Your task to perform on an android device: show emergency info Image 0: 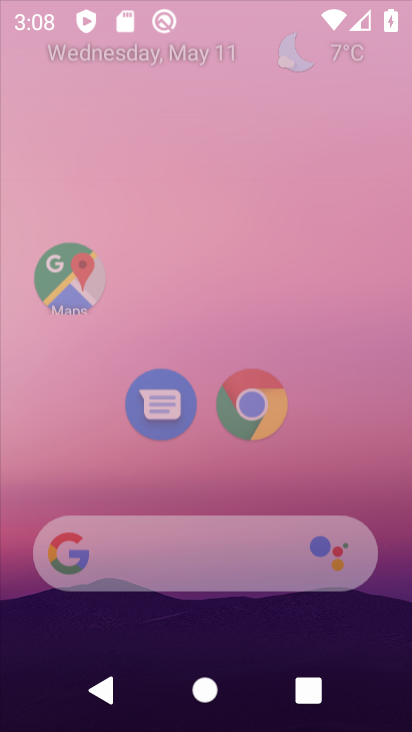
Step 0: click (213, 166)
Your task to perform on an android device: show emergency info Image 1: 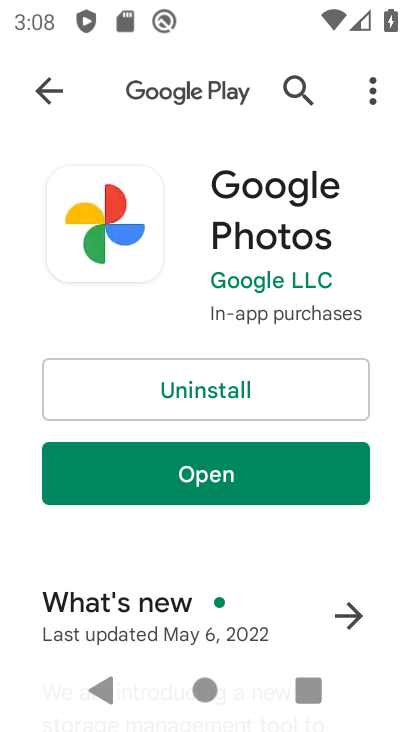
Step 1: press home button
Your task to perform on an android device: show emergency info Image 2: 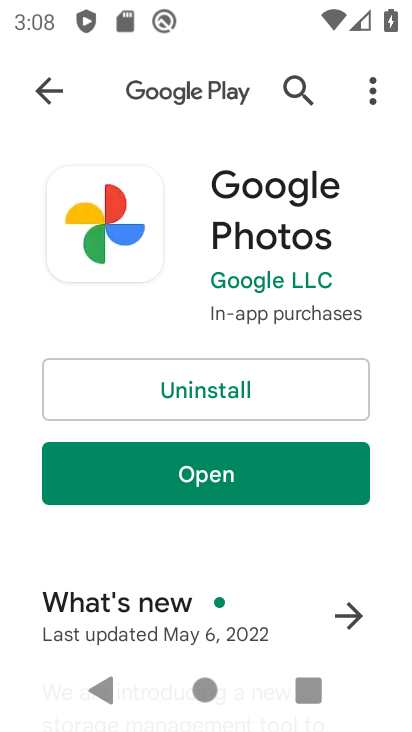
Step 2: press home button
Your task to perform on an android device: show emergency info Image 3: 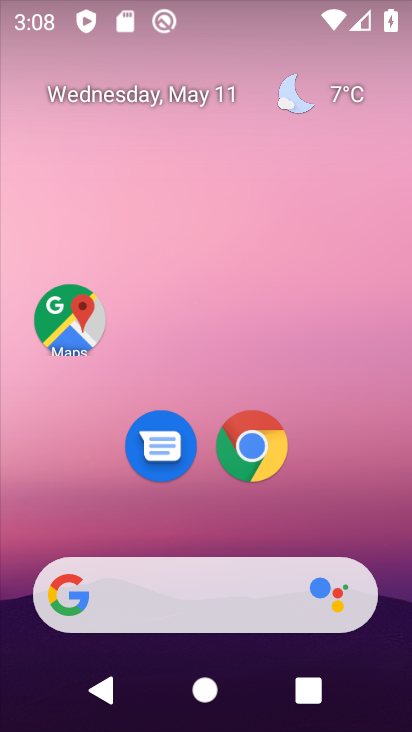
Step 3: click (112, 55)
Your task to perform on an android device: show emergency info Image 4: 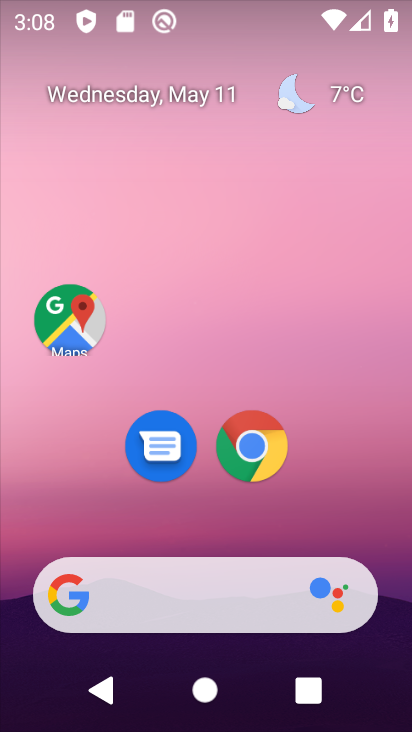
Step 4: drag from (315, 494) to (101, 58)
Your task to perform on an android device: show emergency info Image 5: 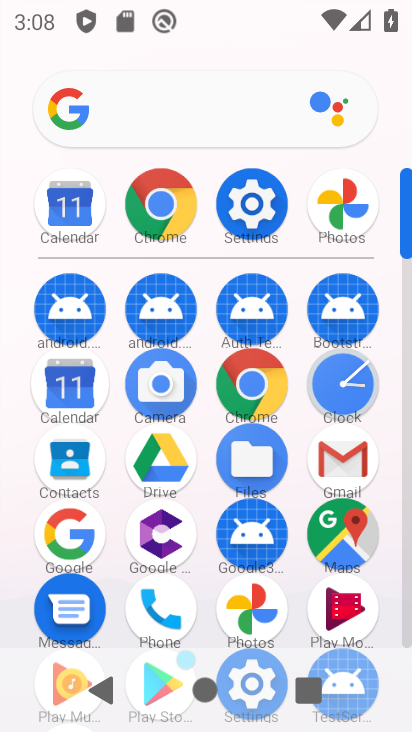
Step 5: click (234, 209)
Your task to perform on an android device: show emergency info Image 6: 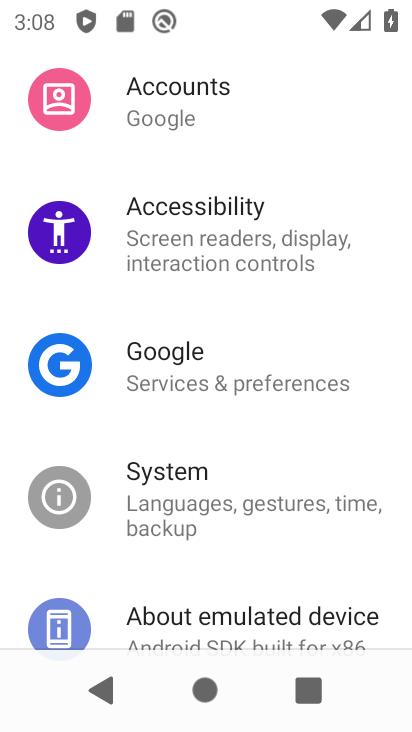
Step 6: click (235, 205)
Your task to perform on an android device: show emergency info Image 7: 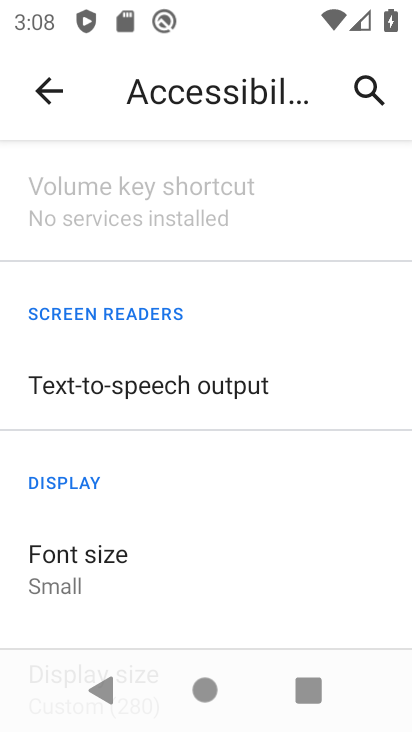
Step 7: click (53, 82)
Your task to perform on an android device: show emergency info Image 8: 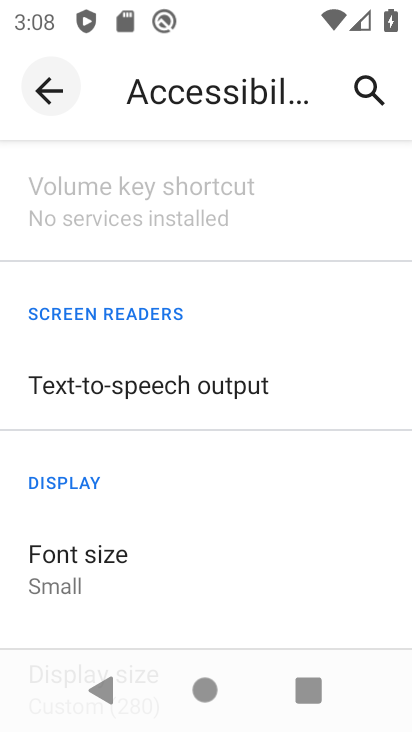
Step 8: click (47, 79)
Your task to perform on an android device: show emergency info Image 9: 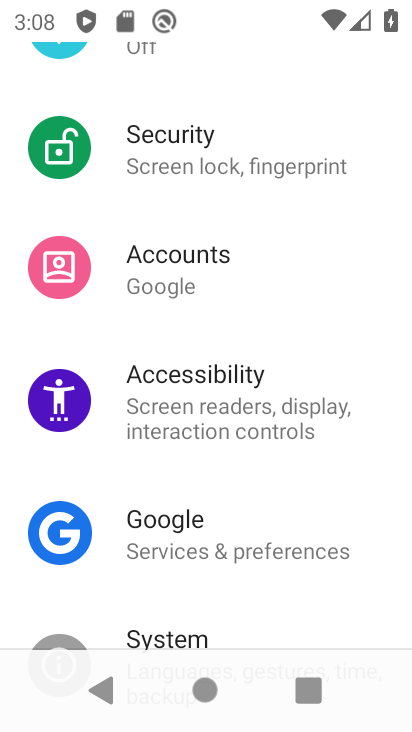
Step 9: drag from (225, 447) to (222, 224)
Your task to perform on an android device: show emergency info Image 10: 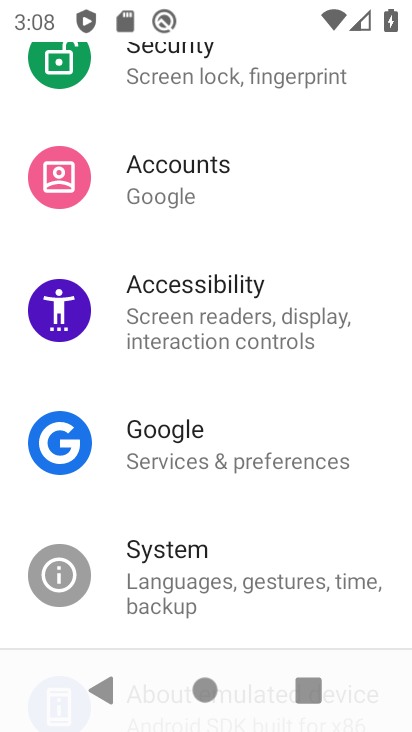
Step 10: drag from (241, 542) to (324, 81)
Your task to perform on an android device: show emergency info Image 11: 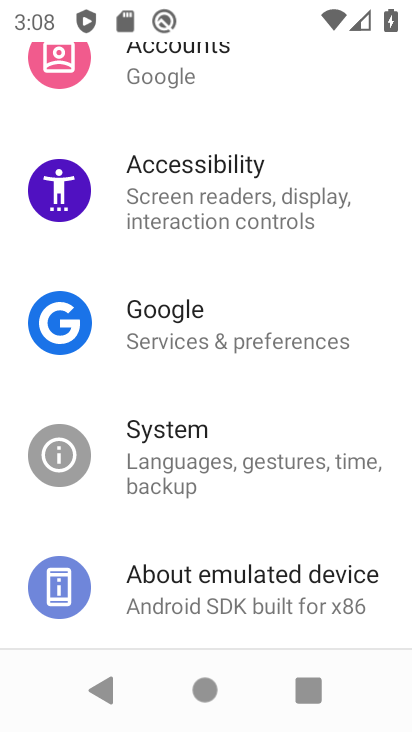
Step 11: drag from (171, 587) to (160, 209)
Your task to perform on an android device: show emergency info Image 12: 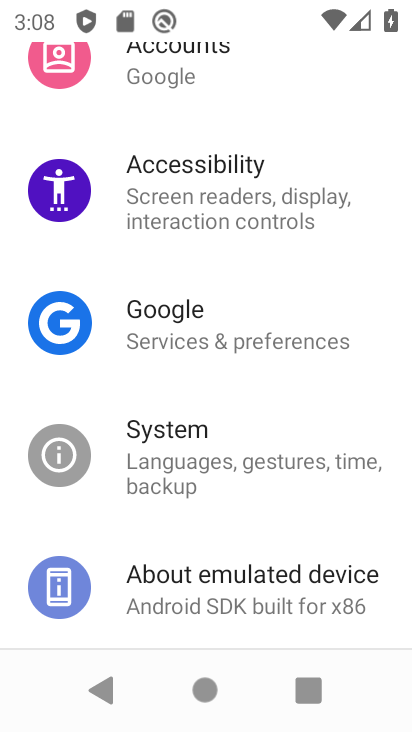
Step 12: click (185, 594)
Your task to perform on an android device: show emergency info Image 13: 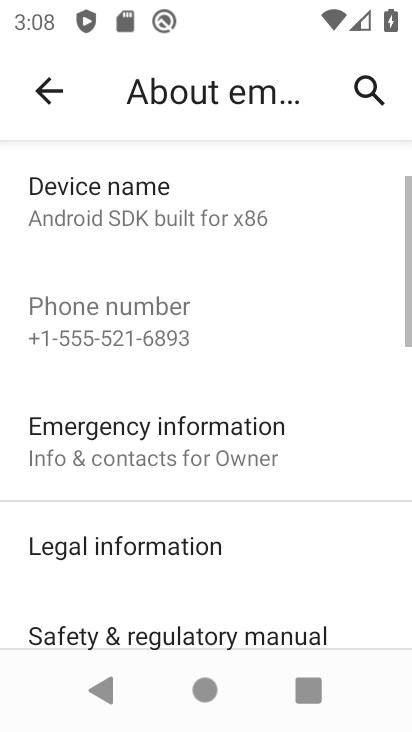
Step 13: click (99, 461)
Your task to perform on an android device: show emergency info Image 14: 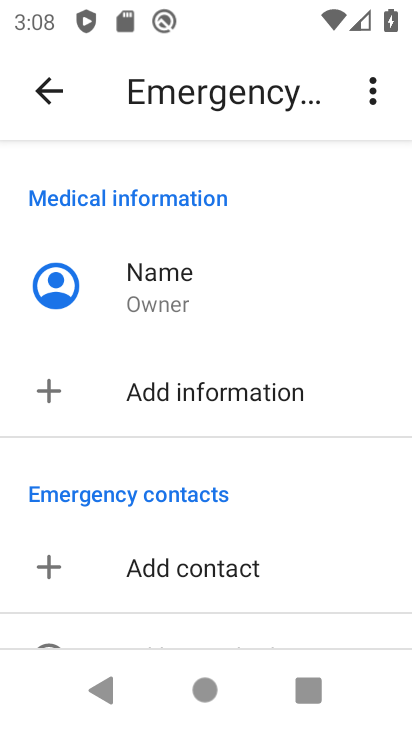
Step 14: task complete